Your task to perform on an android device: change the upload size in google photos Image 0: 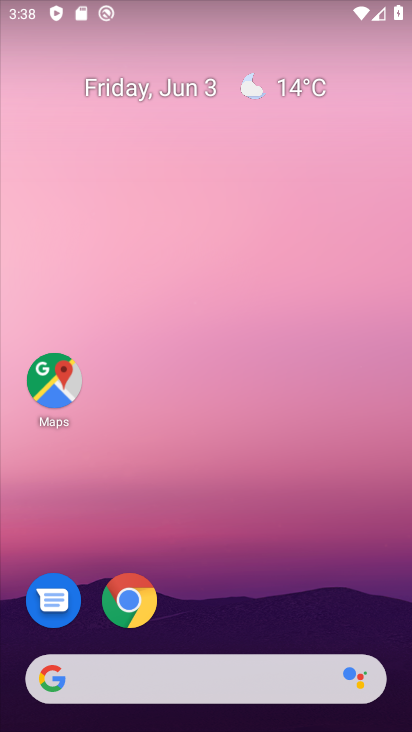
Step 0: drag from (16, 586) to (260, 98)
Your task to perform on an android device: change the upload size in google photos Image 1: 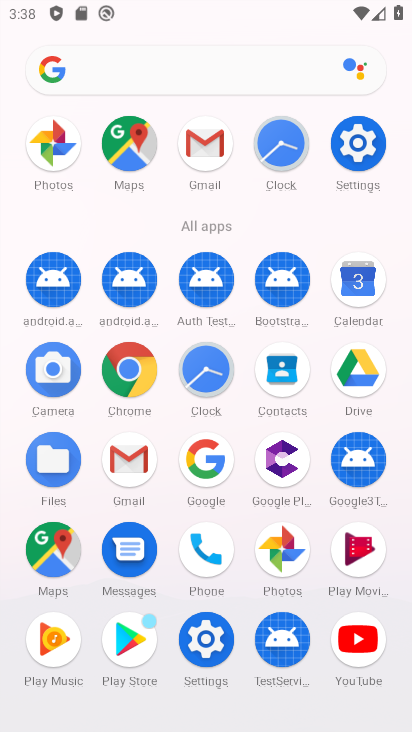
Step 1: click (287, 556)
Your task to perform on an android device: change the upload size in google photos Image 2: 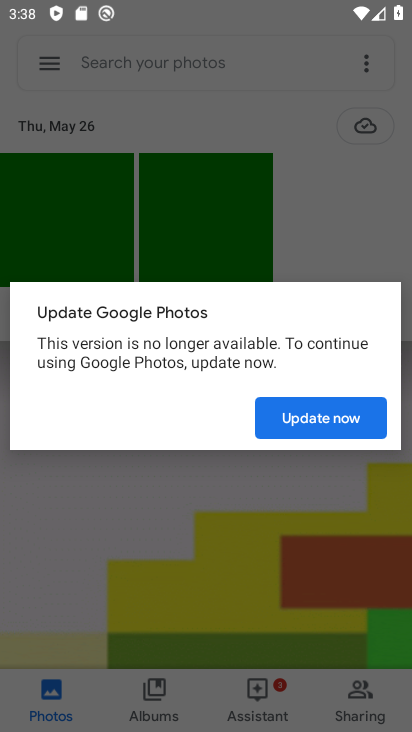
Step 2: click (318, 436)
Your task to perform on an android device: change the upload size in google photos Image 3: 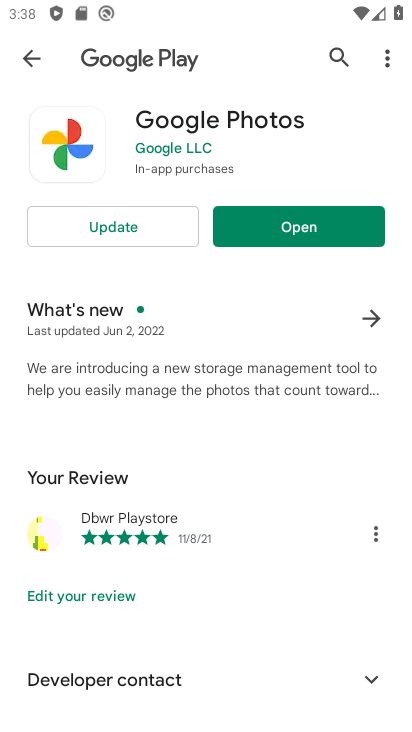
Step 3: click (252, 224)
Your task to perform on an android device: change the upload size in google photos Image 4: 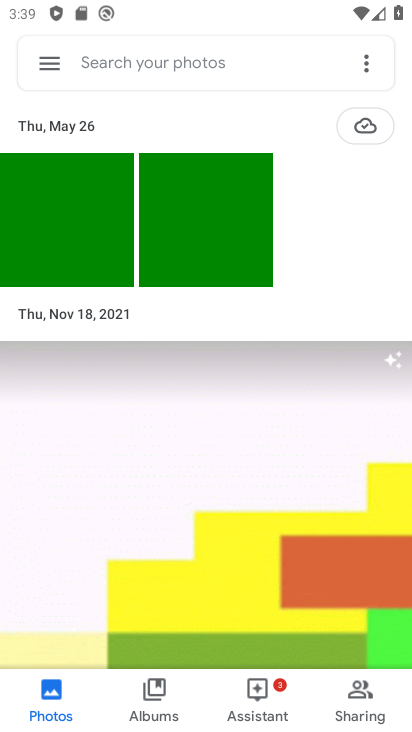
Step 4: click (50, 67)
Your task to perform on an android device: change the upload size in google photos Image 5: 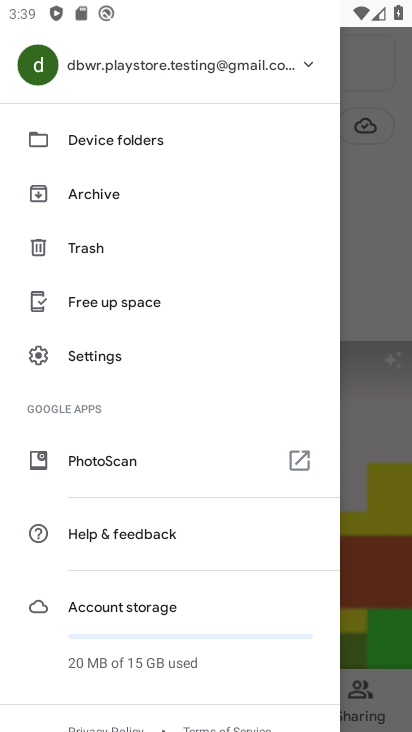
Step 5: drag from (22, 579) to (249, 129)
Your task to perform on an android device: change the upload size in google photos Image 6: 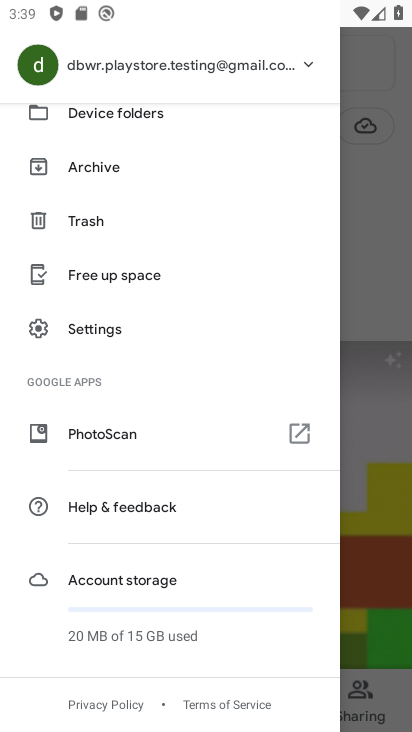
Step 6: click (110, 324)
Your task to perform on an android device: change the upload size in google photos Image 7: 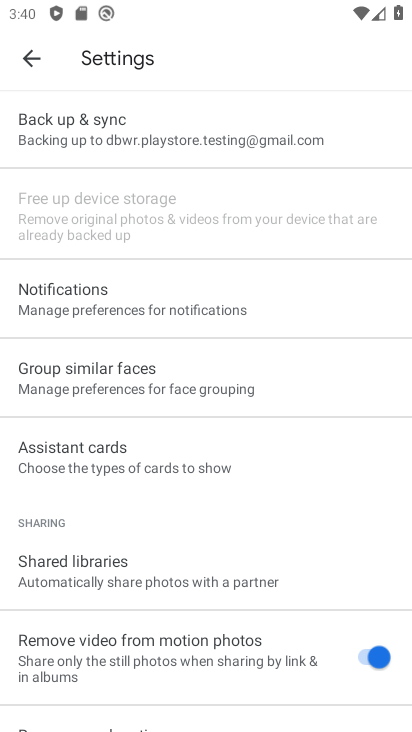
Step 7: click (168, 125)
Your task to perform on an android device: change the upload size in google photos Image 8: 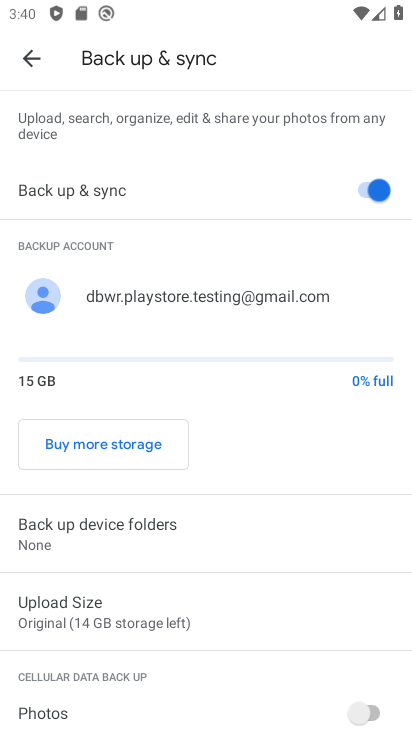
Step 8: click (117, 606)
Your task to perform on an android device: change the upload size in google photos Image 9: 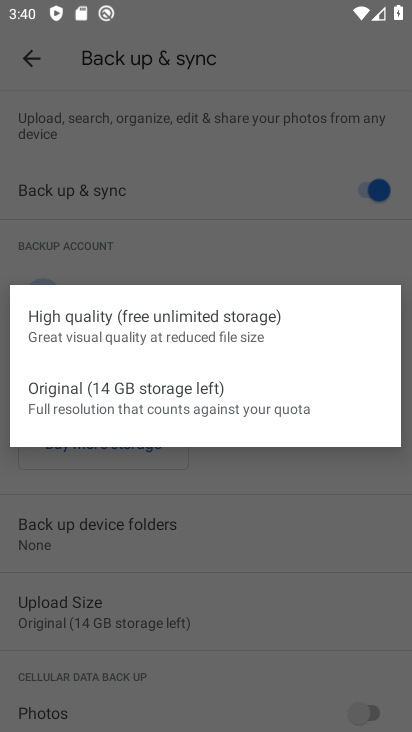
Step 9: click (182, 318)
Your task to perform on an android device: change the upload size in google photos Image 10: 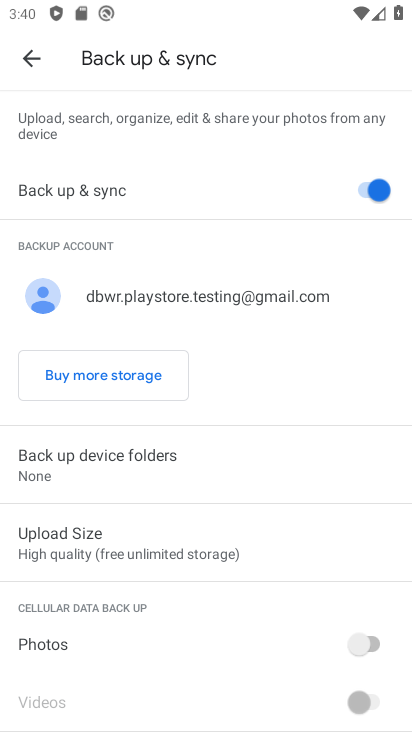
Step 10: task complete